Your task to perform on an android device: toggle sleep mode Image 0: 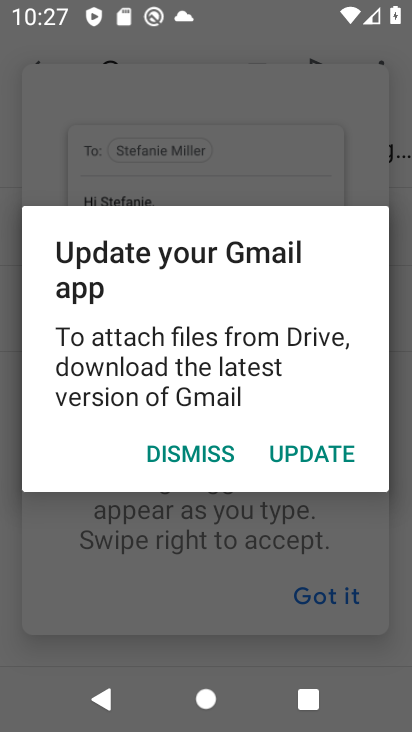
Step 0: press home button
Your task to perform on an android device: toggle sleep mode Image 1: 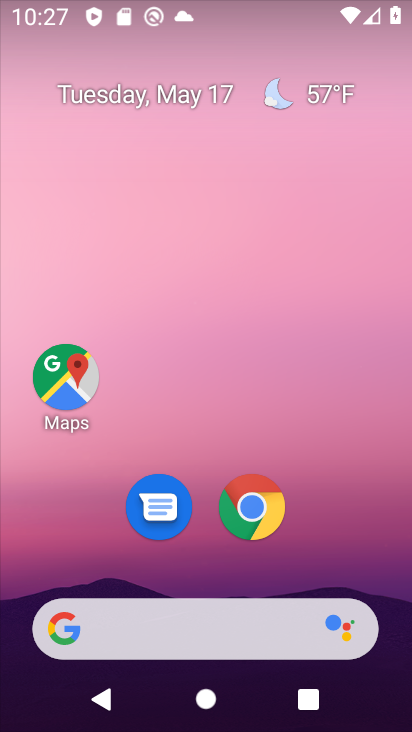
Step 1: drag from (371, 544) to (375, 173)
Your task to perform on an android device: toggle sleep mode Image 2: 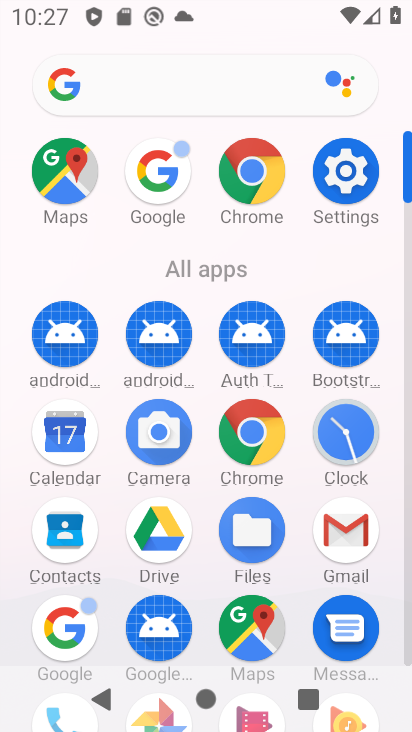
Step 2: click (338, 183)
Your task to perform on an android device: toggle sleep mode Image 3: 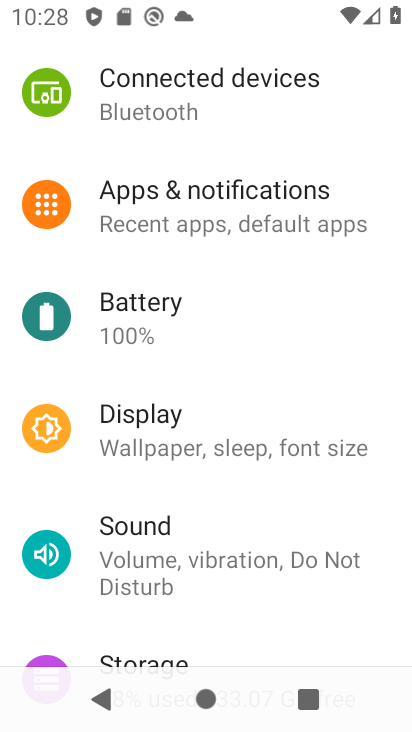
Step 3: drag from (356, 604) to (368, 420)
Your task to perform on an android device: toggle sleep mode Image 4: 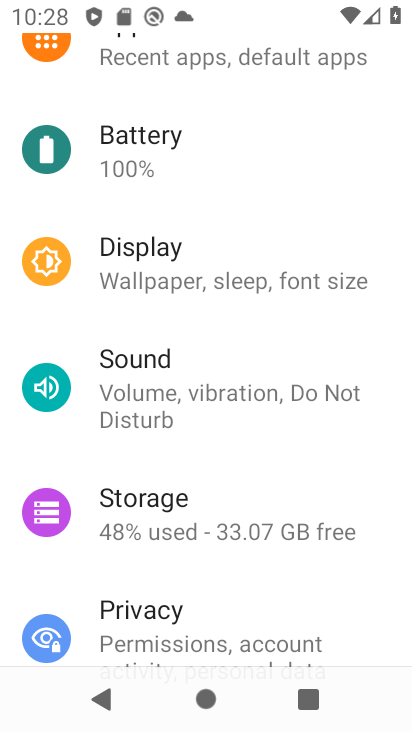
Step 4: drag from (357, 607) to (377, 416)
Your task to perform on an android device: toggle sleep mode Image 5: 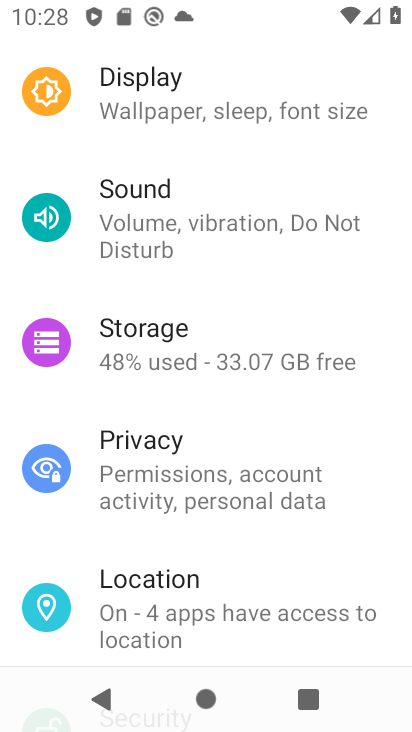
Step 5: drag from (361, 561) to (350, 392)
Your task to perform on an android device: toggle sleep mode Image 6: 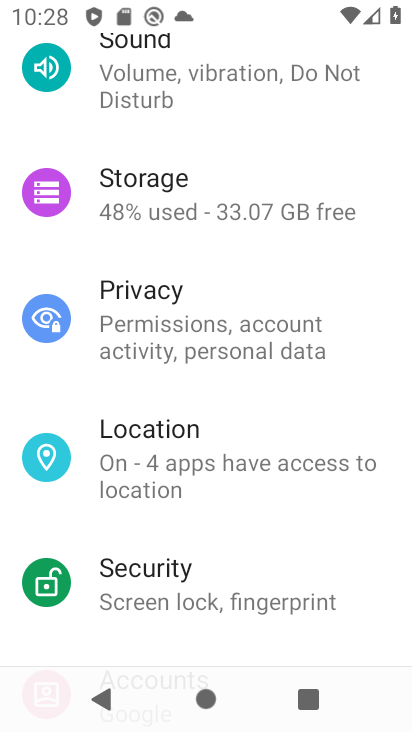
Step 6: drag from (334, 535) to (334, 410)
Your task to perform on an android device: toggle sleep mode Image 7: 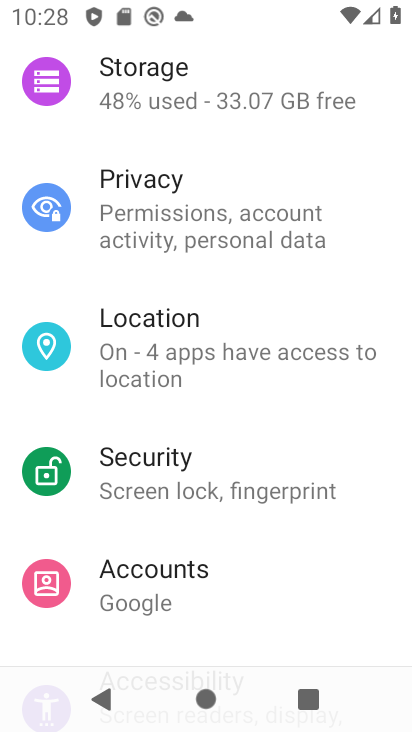
Step 7: drag from (349, 267) to (341, 405)
Your task to perform on an android device: toggle sleep mode Image 8: 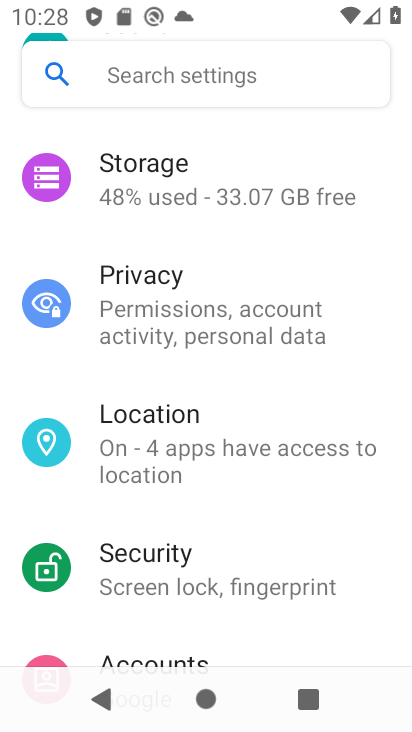
Step 8: drag from (362, 256) to (355, 427)
Your task to perform on an android device: toggle sleep mode Image 9: 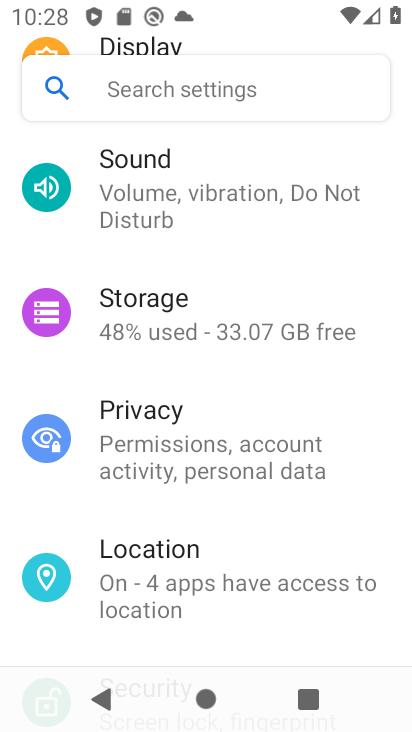
Step 9: drag from (364, 250) to (354, 426)
Your task to perform on an android device: toggle sleep mode Image 10: 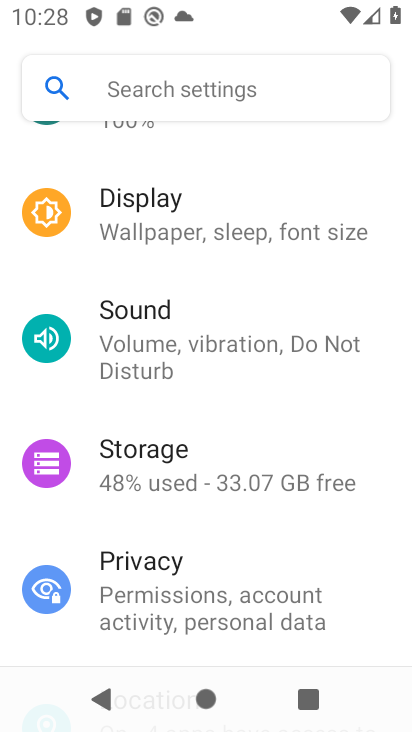
Step 10: click (308, 232)
Your task to perform on an android device: toggle sleep mode Image 11: 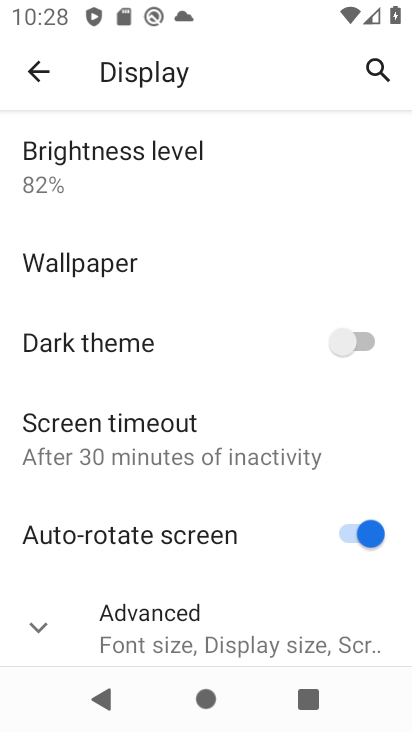
Step 11: click (222, 626)
Your task to perform on an android device: toggle sleep mode Image 12: 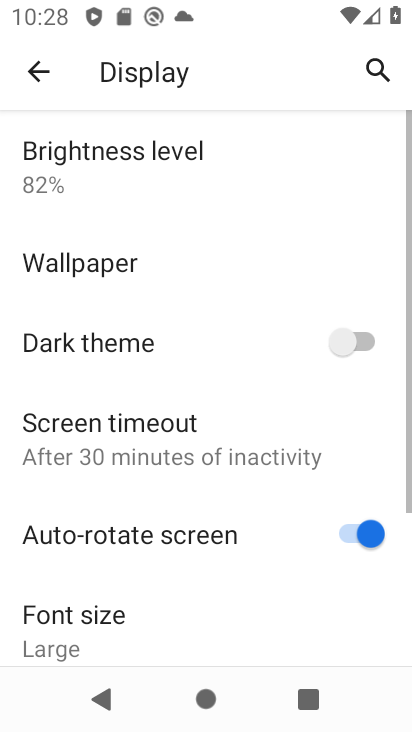
Step 12: task complete